Your task to perform on an android device: turn off smart reply in the gmail app Image 0: 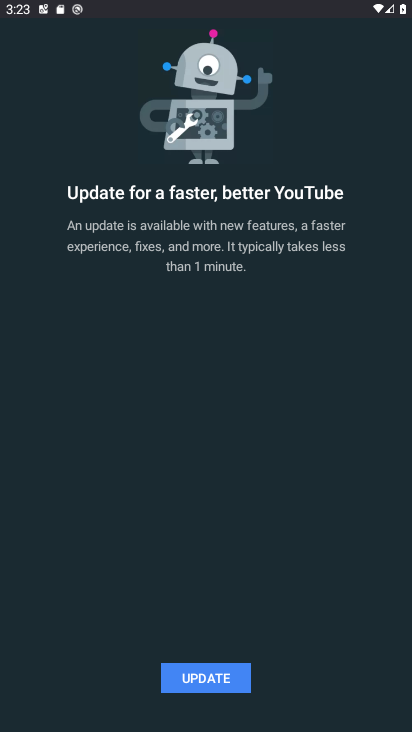
Step 0: press home button
Your task to perform on an android device: turn off smart reply in the gmail app Image 1: 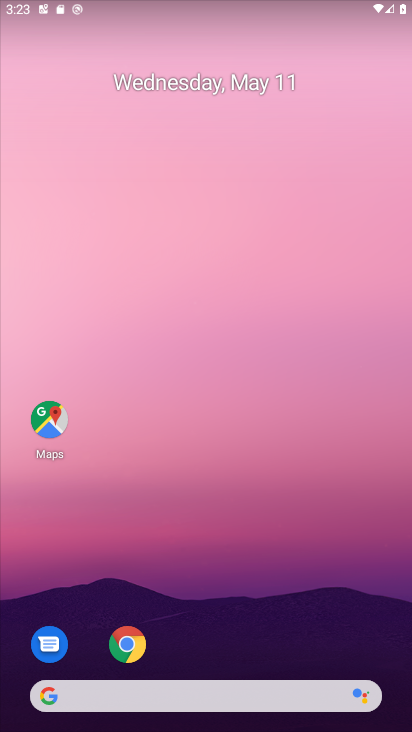
Step 1: drag from (206, 670) to (403, 299)
Your task to perform on an android device: turn off smart reply in the gmail app Image 2: 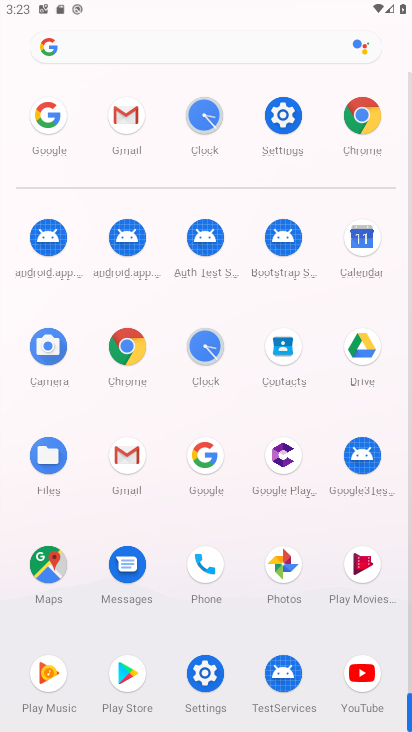
Step 2: click (122, 458)
Your task to perform on an android device: turn off smart reply in the gmail app Image 3: 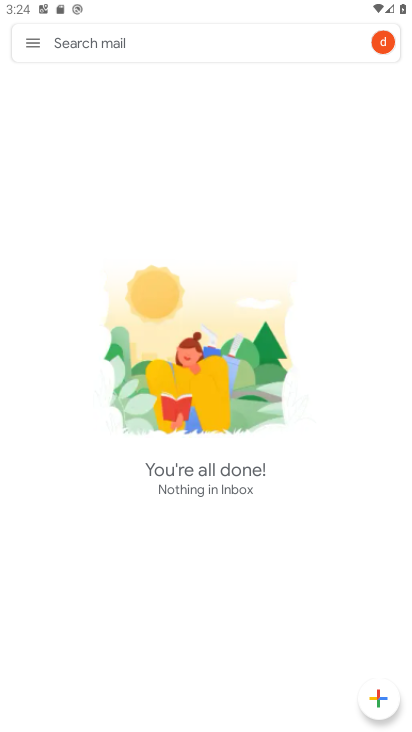
Step 3: click (38, 42)
Your task to perform on an android device: turn off smart reply in the gmail app Image 4: 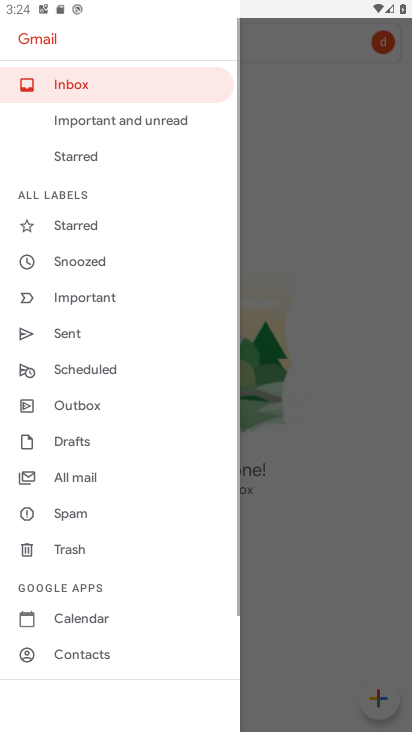
Step 4: drag from (102, 525) to (57, 96)
Your task to perform on an android device: turn off smart reply in the gmail app Image 5: 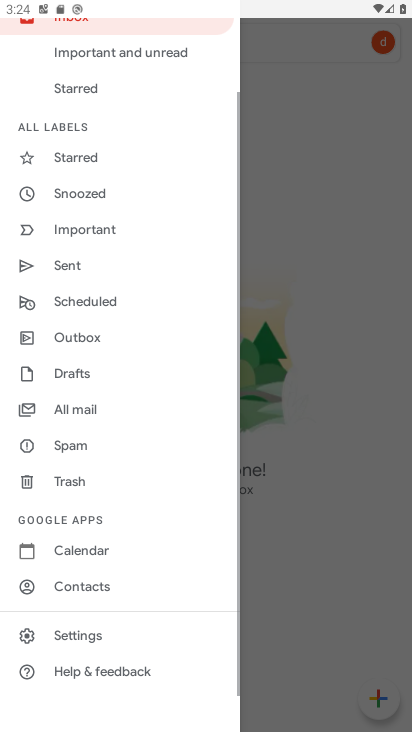
Step 5: click (76, 637)
Your task to perform on an android device: turn off smart reply in the gmail app Image 6: 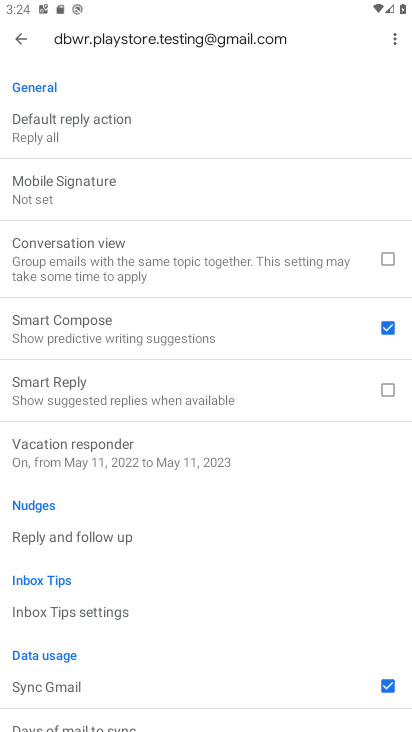
Step 6: task complete